Your task to perform on an android device: Turn off the flashlight Image 0: 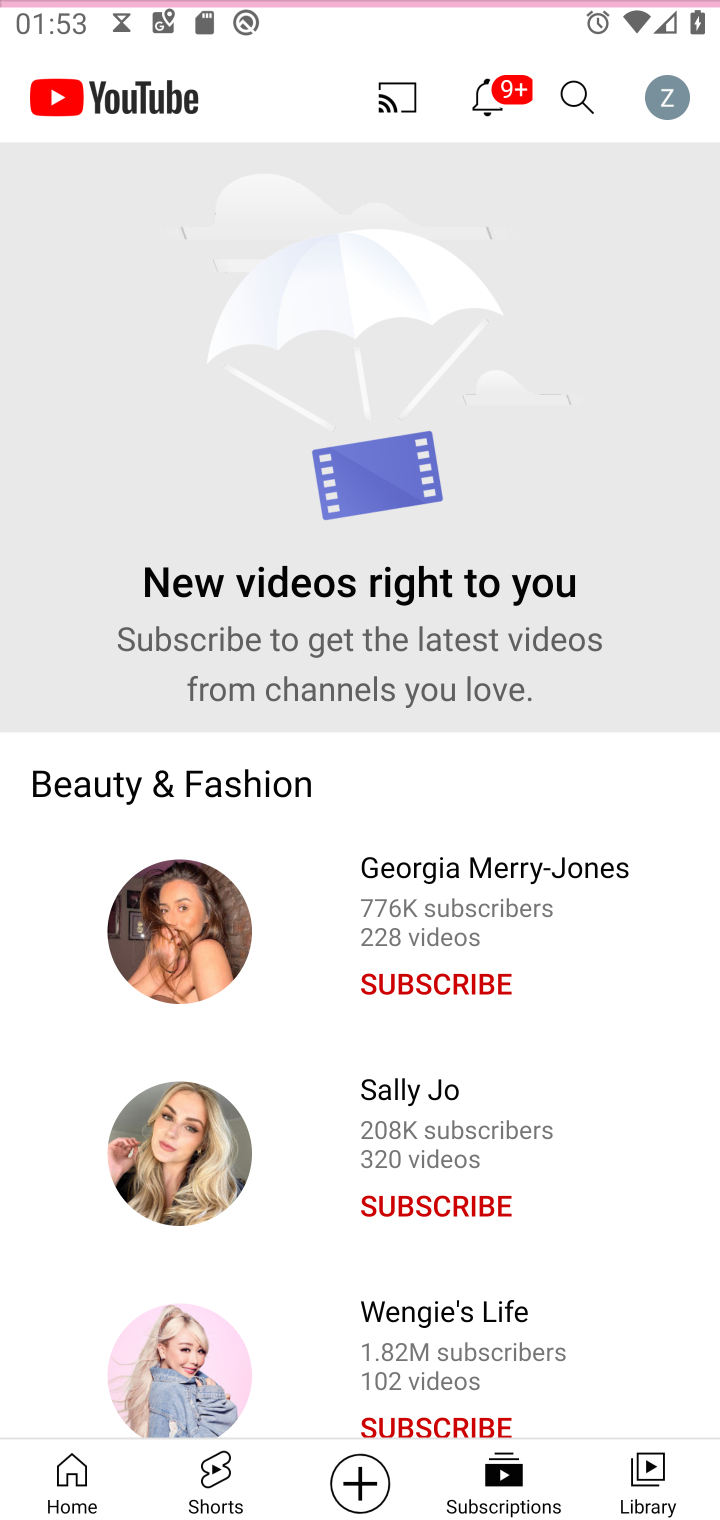
Step 0: press home button
Your task to perform on an android device: Turn off the flashlight Image 1: 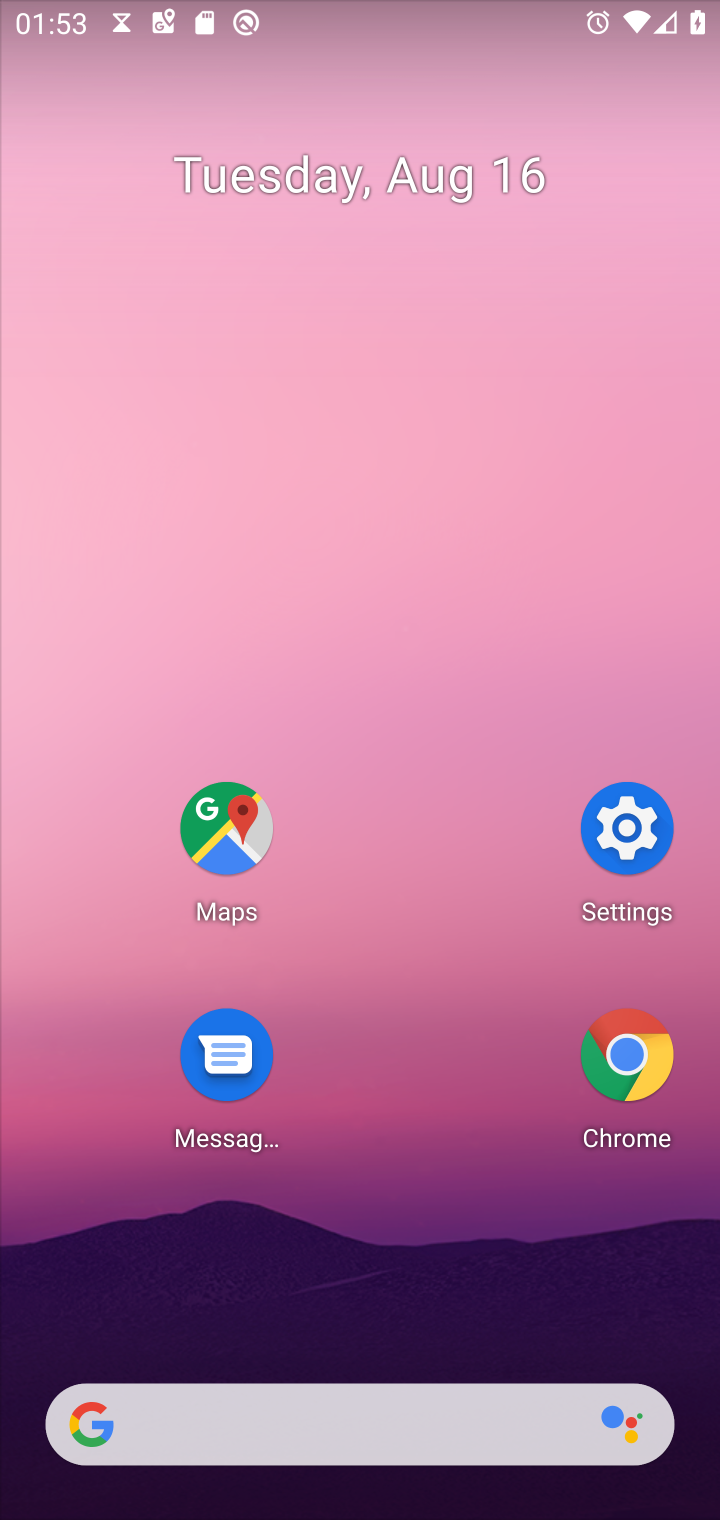
Step 1: task complete